Your task to perform on an android device: Open Yahoo.com Image 0: 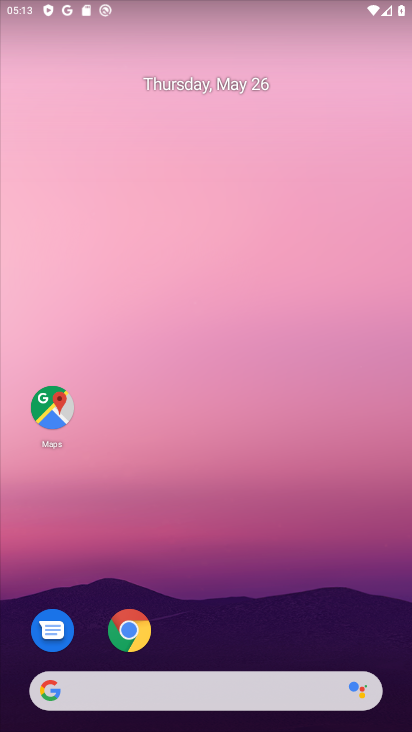
Step 0: click (135, 639)
Your task to perform on an android device: Open Yahoo.com Image 1: 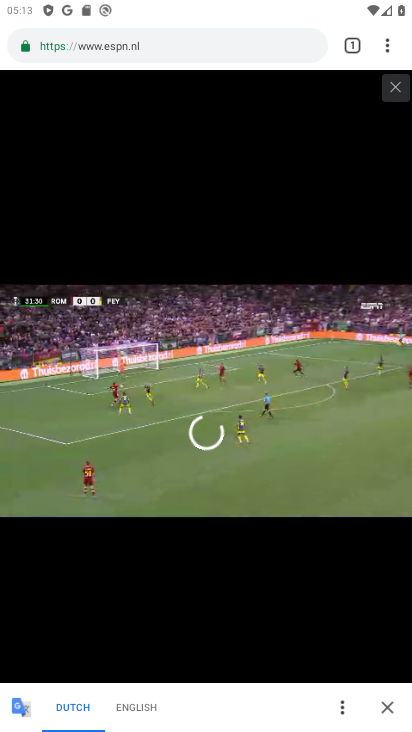
Step 1: drag from (390, 51) to (331, 105)
Your task to perform on an android device: Open Yahoo.com Image 2: 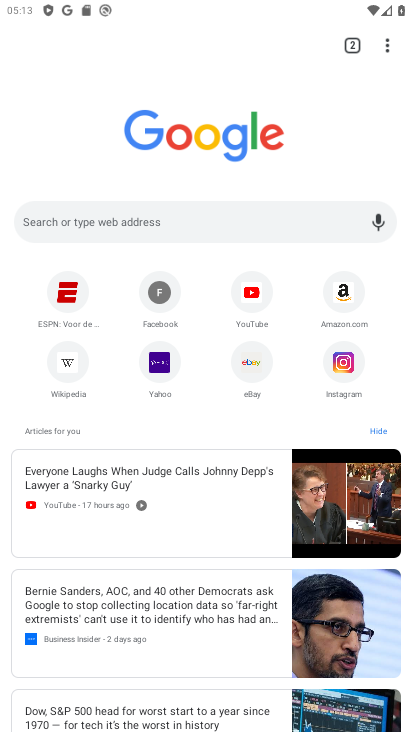
Step 2: click (164, 371)
Your task to perform on an android device: Open Yahoo.com Image 3: 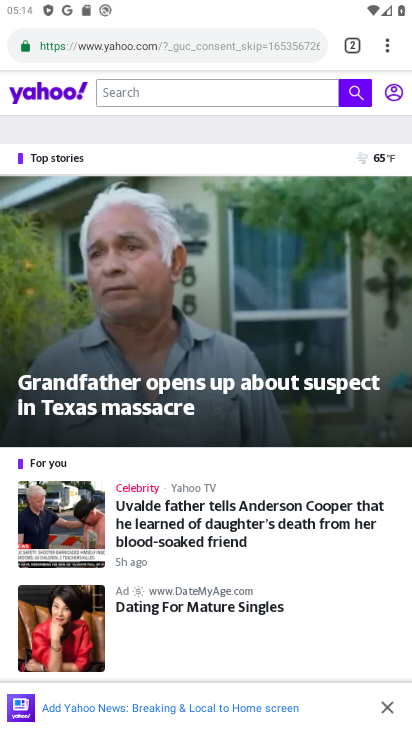
Step 3: task complete